Your task to perform on an android device: turn off sleep mode Image 0: 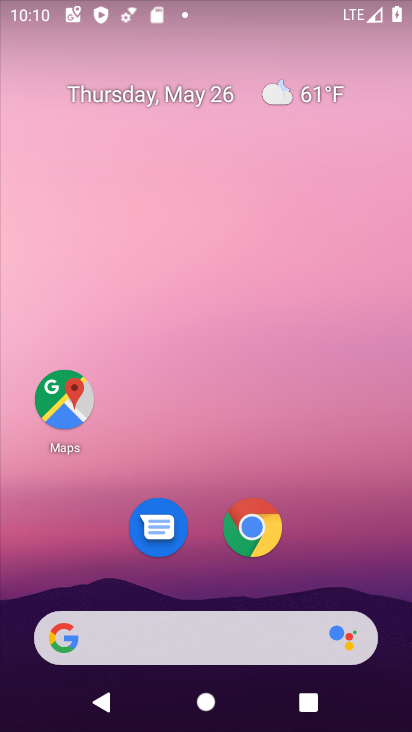
Step 0: drag from (183, 581) to (268, 42)
Your task to perform on an android device: turn off sleep mode Image 1: 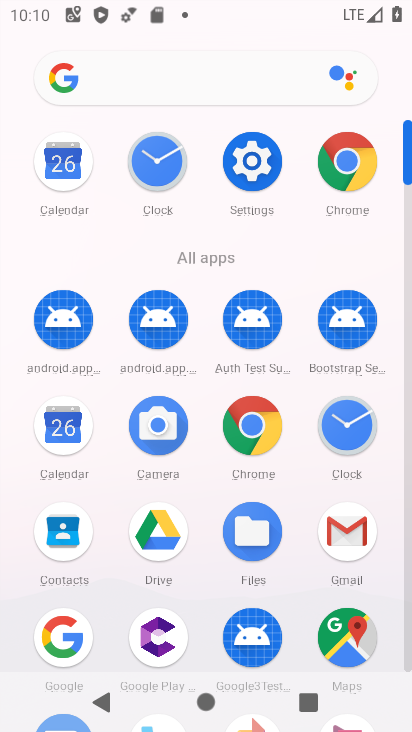
Step 1: click (246, 161)
Your task to perform on an android device: turn off sleep mode Image 2: 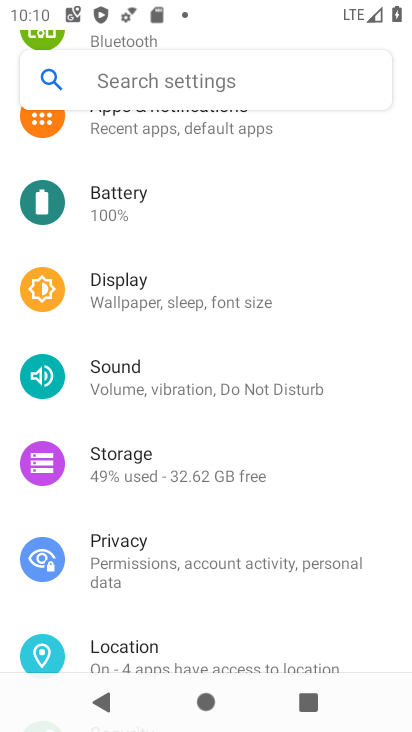
Step 2: click (197, 89)
Your task to perform on an android device: turn off sleep mode Image 3: 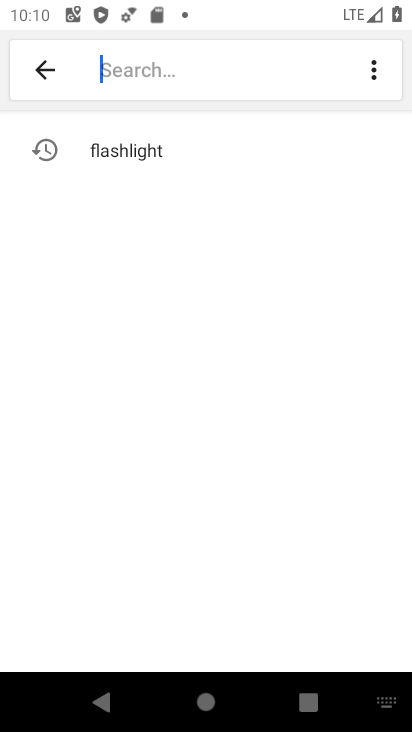
Step 3: type "sleep mode"
Your task to perform on an android device: turn off sleep mode Image 4: 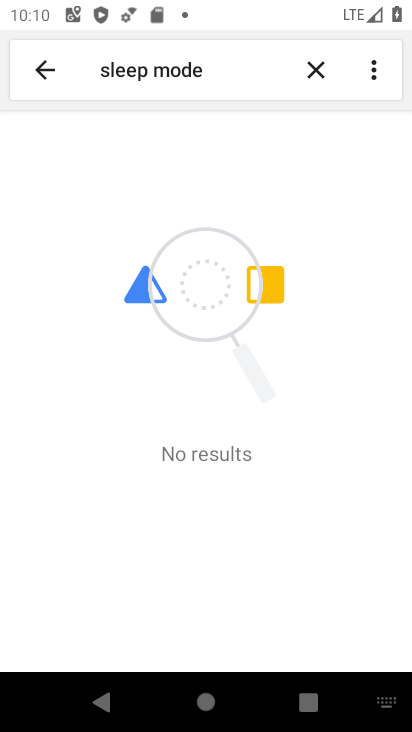
Step 4: task complete